Your task to perform on an android device: check the backup settings in the google photos Image 0: 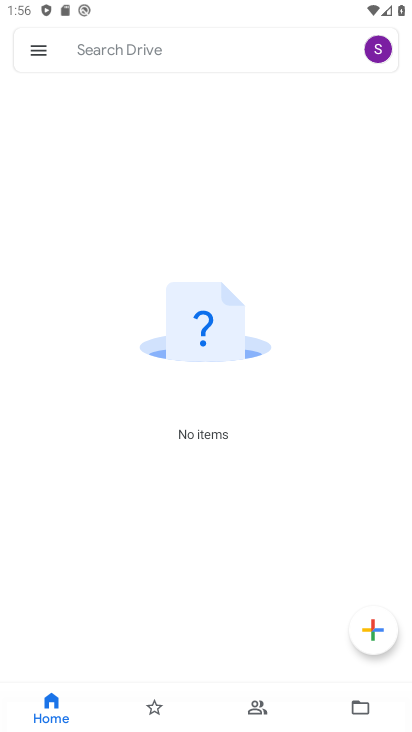
Step 0: press home button
Your task to perform on an android device: check the backup settings in the google photos Image 1: 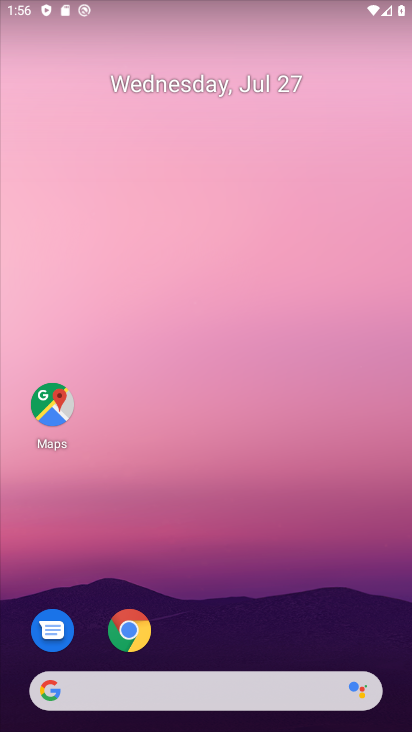
Step 1: drag from (334, 601) to (144, 5)
Your task to perform on an android device: check the backup settings in the google photos Image 2: 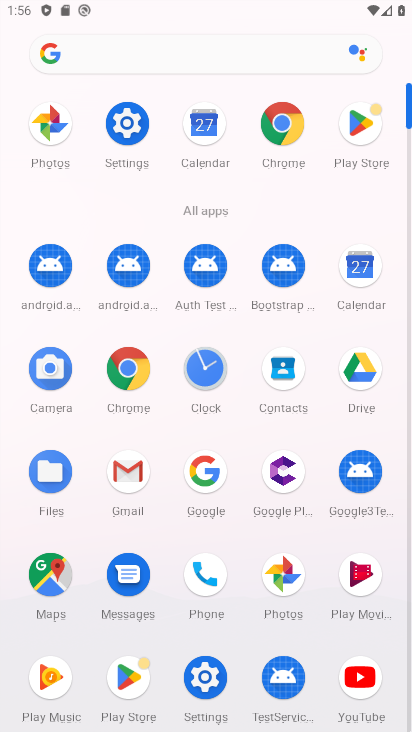
Step 2: click (276, 574)
Your task to perform on an android device: check the backup settings in the google photos Image 3: 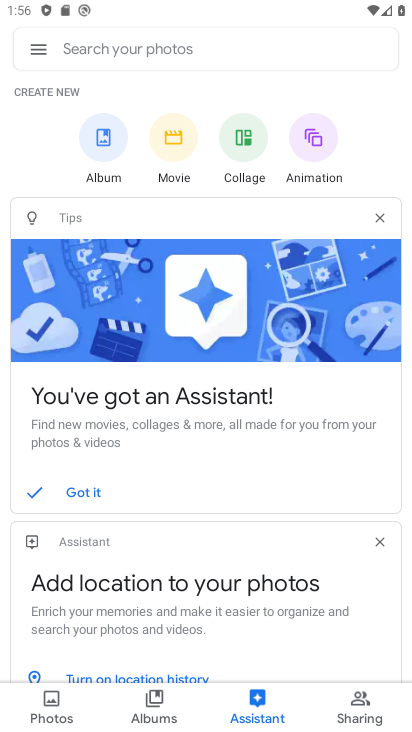
Step 3: click (31, 55)
Your task to perform on an android device: check the backup settings in the google photos Image 4: 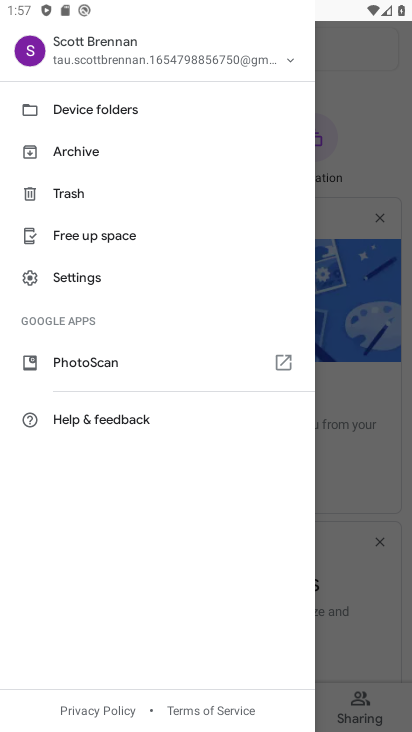
Step 4: click (96, 275)
Your task to perform on an android device: check the backup settings in the google photos Image 5: 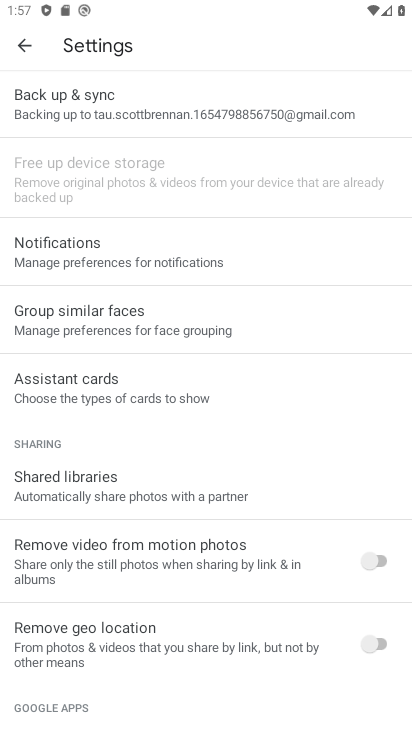
Step 5: click (156, 117)
Your task to perform on an android device: check the backup settings in the google photos Image 6: 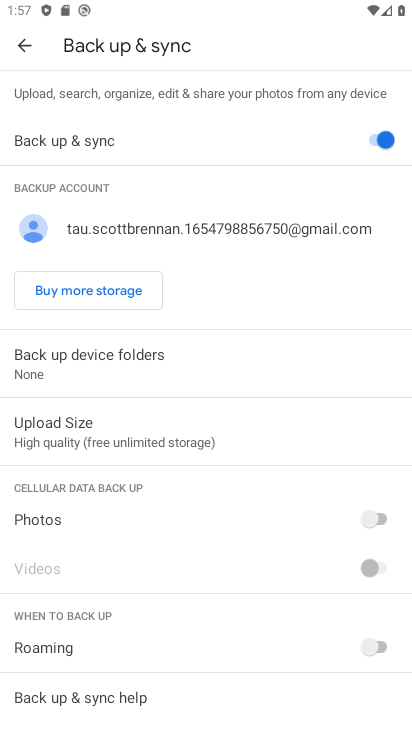
Step 6: task complete